Your task to perform on an android device: allow notifications from all sites in the chrome app Image 0: 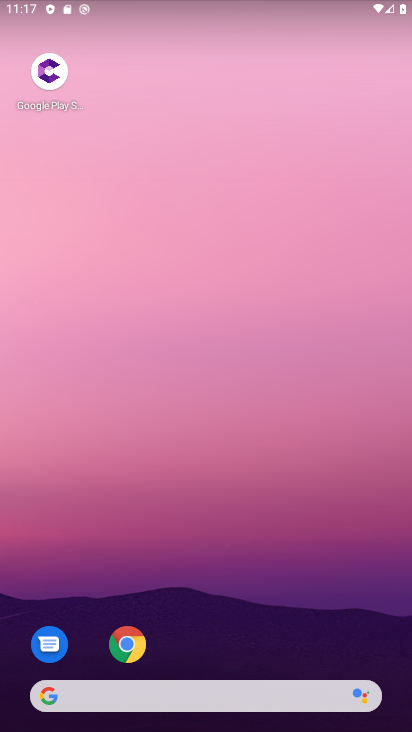
Step 0: drag from (234, 460) to (189, 180)
Your task to perform on an android device: allow notifications from all sites in the chrome app Image 1: 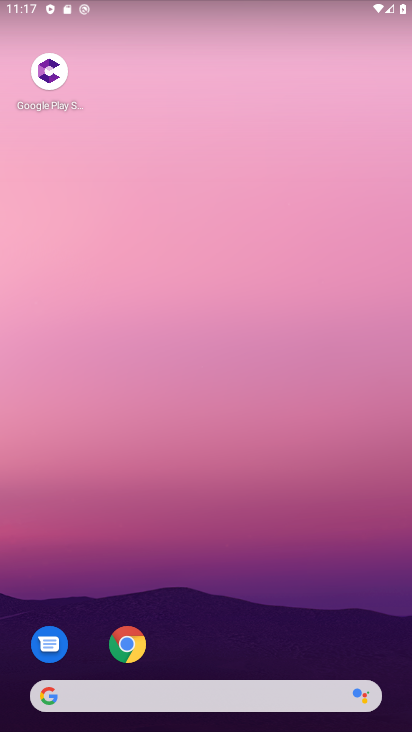
Step 1: drag from (172, 623) to (100, 0)
Your task to perform on an android device: allow notifications from all sites in the chrome app Image 2: 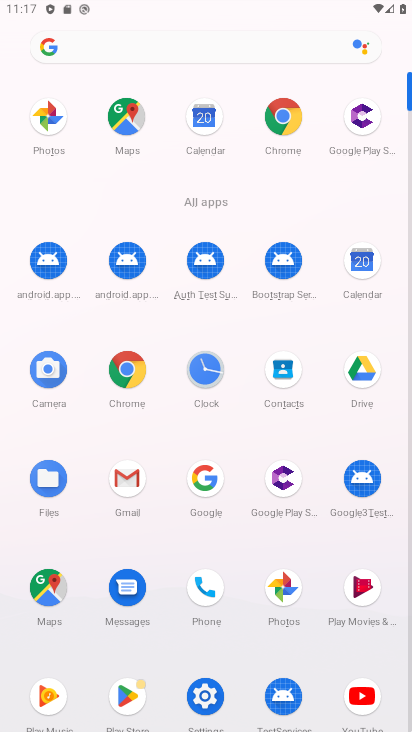
Step 2: click (284, 133)
Your task to perform on an android device: allow notifications from all sites in the chrome app Image 3: 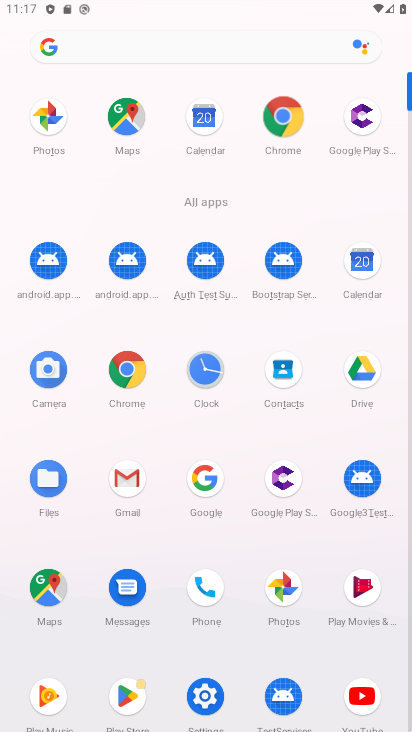
Step 3: click (284, 130)
Your task to perform on an android device: allow notifications from all sites in the chrome app Image 4: 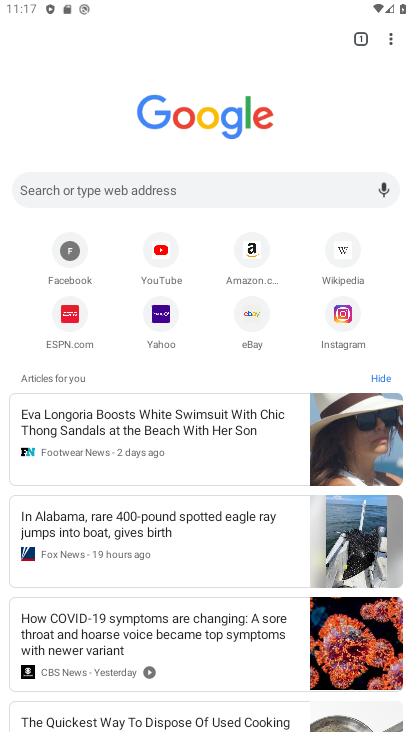
Step 4: drag from (393, 39) to (254, 324)
Your task to perform on an android device: allow notifications from all sites in the chrome app Image 5: 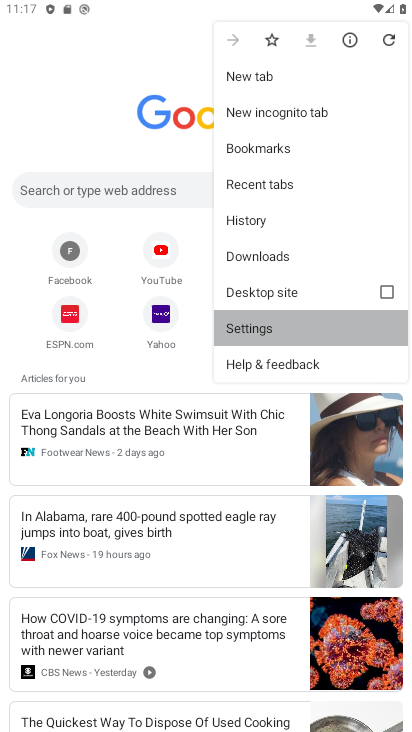
Step 5: click (253, 327)
Your task to perform on an android device: allow notifications from all sites in the chrome app Image 6: 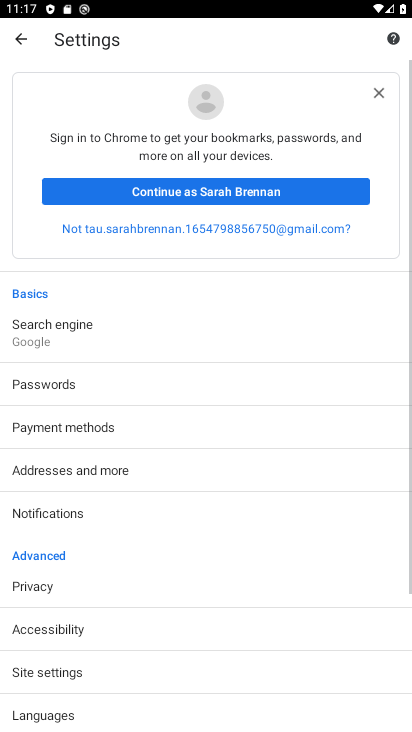
Step 6: click (171, 99)
Your task to perform on an android device: allow notifications from all sites in the chrome app Image 7: 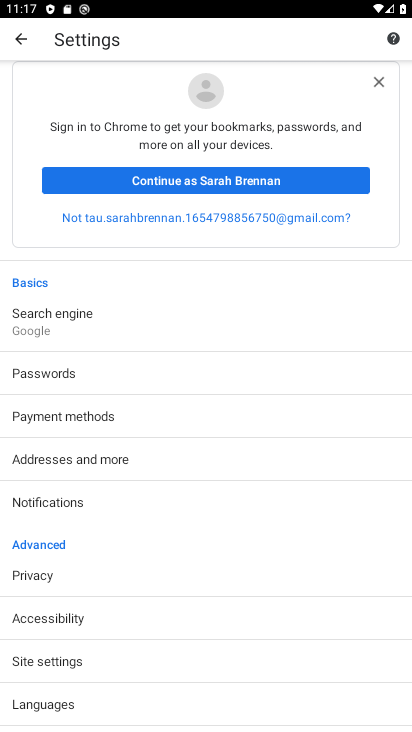
Step 7: drag from (123, 564) to (69, 252)
Your task to perform on an android device: allow notifications from all sites in the chrome app Image 8: 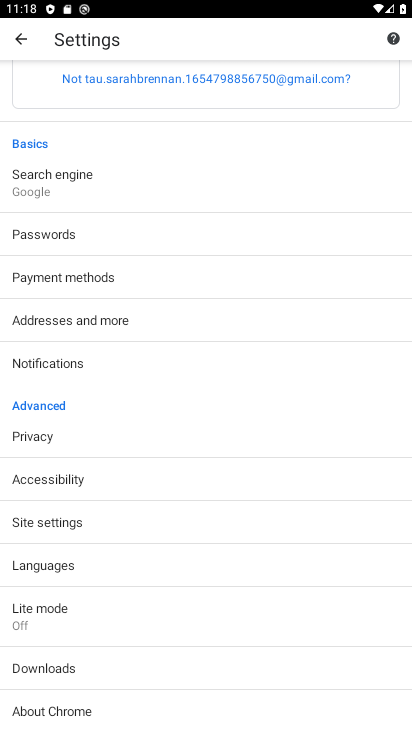
Step 8: click (38, 518)
Your task to perform on an android device: allow notifications from all sites in the chrome app Image 9: 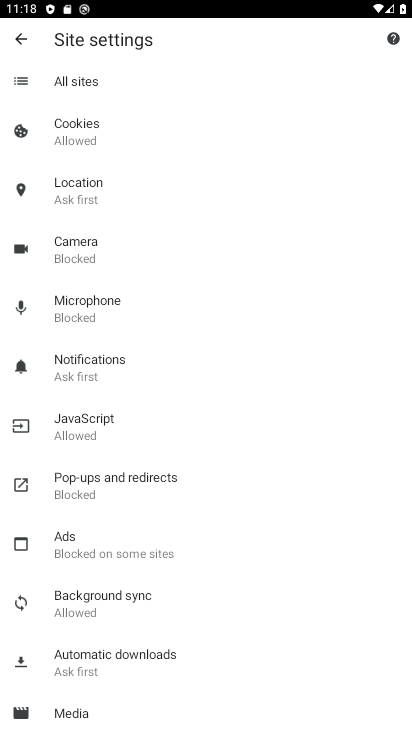
Step 9: click (68, 364)
Your task to perform on an android device: allow notifications from all sites in the chrome app Image 10: 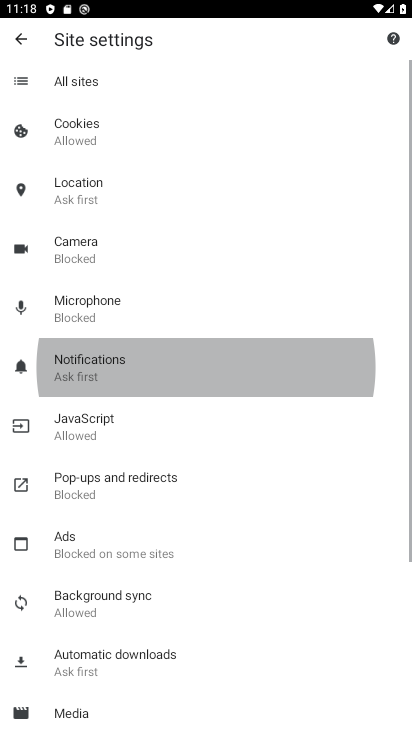
Step 10: click (74, 371)
Your task to perform on an android device: allow notifications from all sites in the chrome app Image 11: 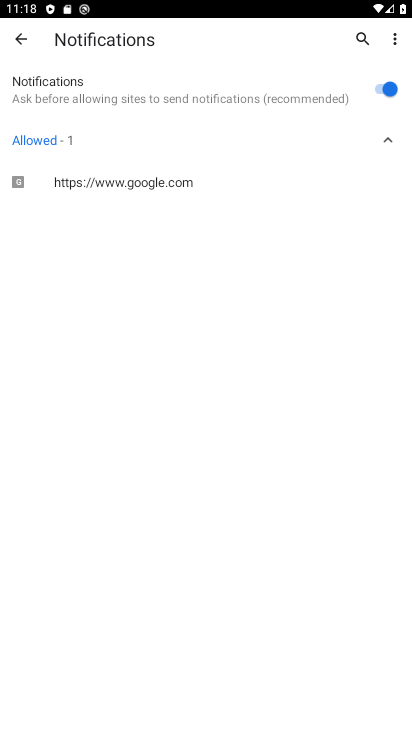
Step 11: task complete